Your task to perform on an android device: What is the news today? Image 0: 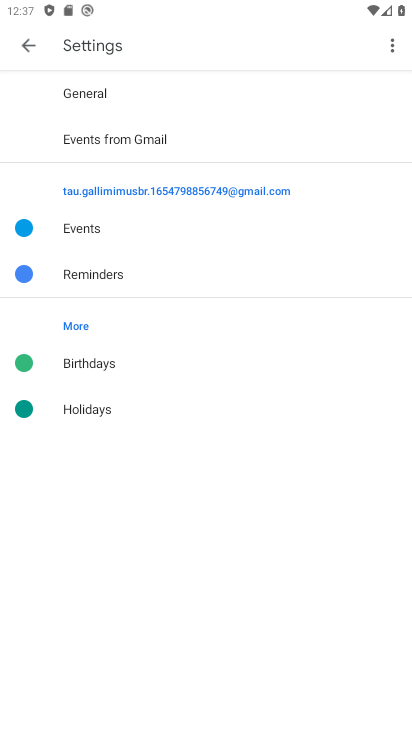
Step 0: press home button
Your task to perform on an android device: What is the news today? Image 1: 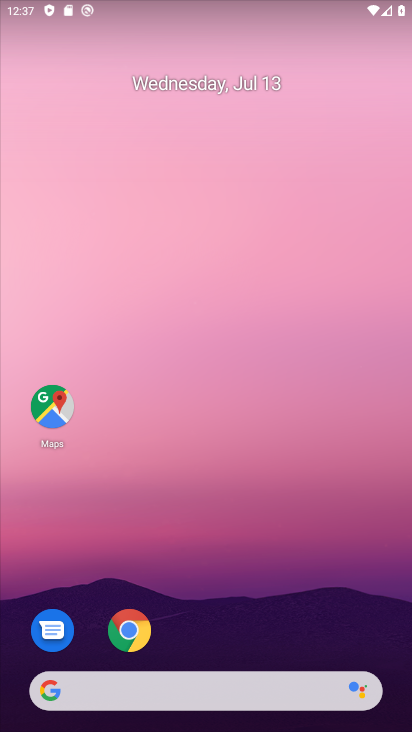
Step 1: drag from (26, 702) to (150, 62)
Your task to perform on an android device: What is the news today? Image 2: 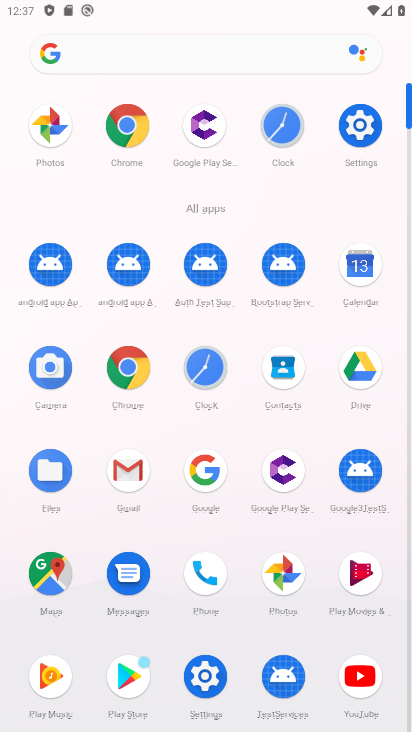
Step 2: click (106, 55)
Your task to perform on an android device: What is the news today? Image 3: 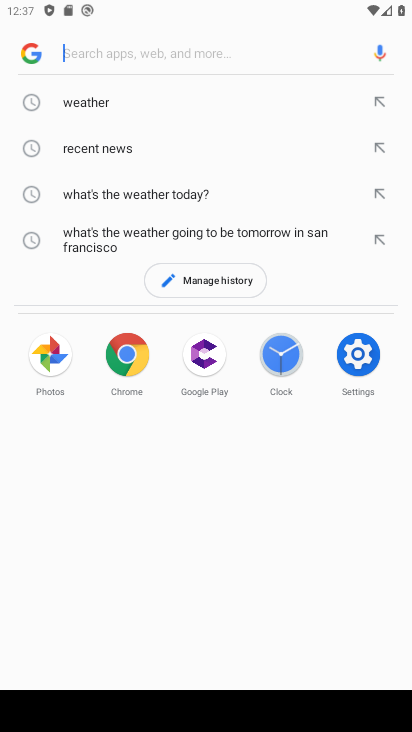
Step 3: click (108, 38)
Your task to perform on an android device: What is the news today? Image 4: 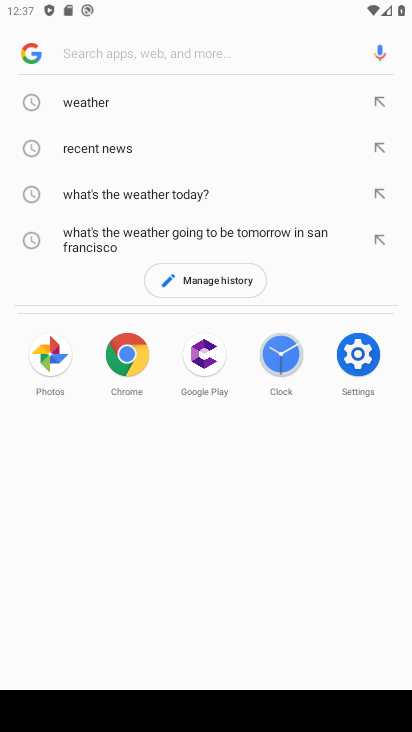
Step 4: type "What is the news today?"
Your task to perform on an android device: What is the news today? Image 5: 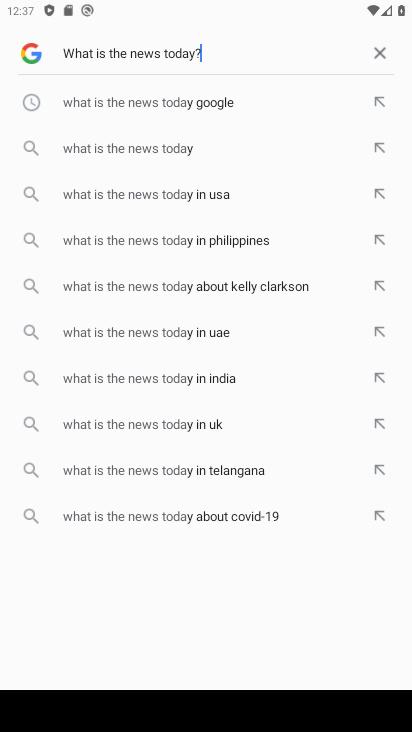
Step 5: type ""
Your task to perform on an android device: What is the news today? Image 6: 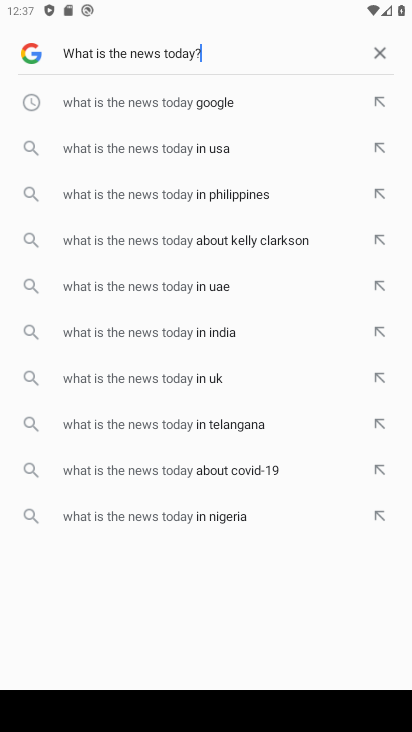
Step 6: type ""
Your task to perform on an android device: What is the news today? Image 7: 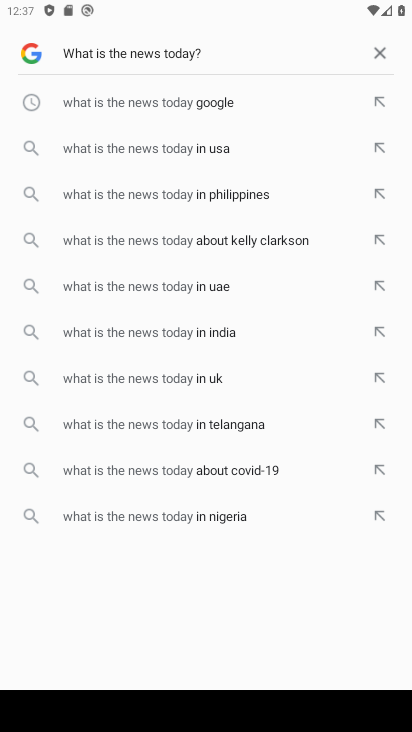
Step 7: type ""
Your task to perform on an android device: What is the news today? Image 8: 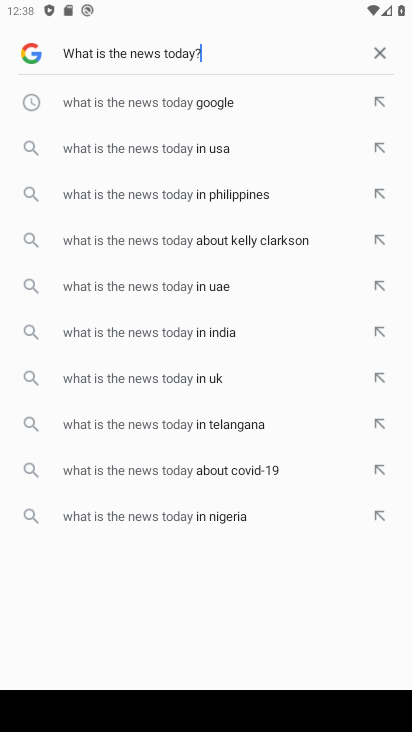
Step 8: task complete